Your task to perform on an android device: turn notification dots off Image 0: 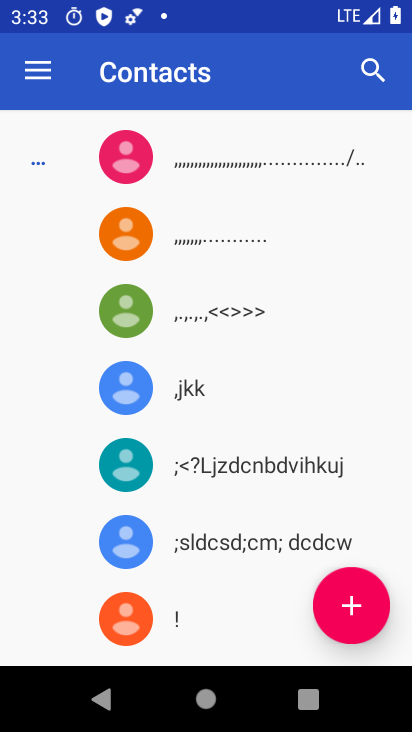
Step 0: drag from (265, 604) to (261, 411)
Your task to perform on an android device: turn notification dots off Image 1: 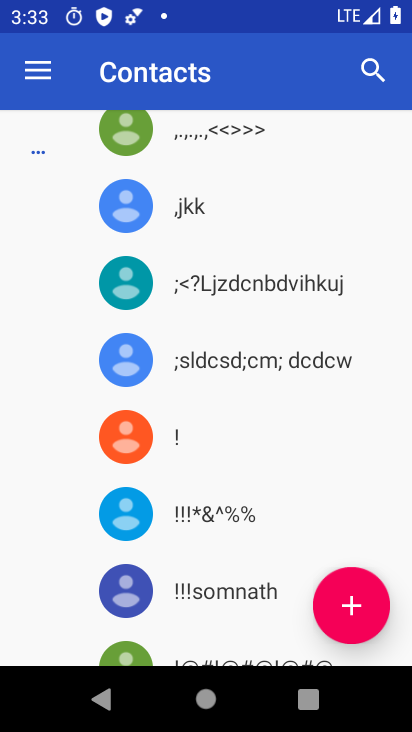
Step 1: press home button
Your task to perform on an android device: turn notification dots off Image 2: 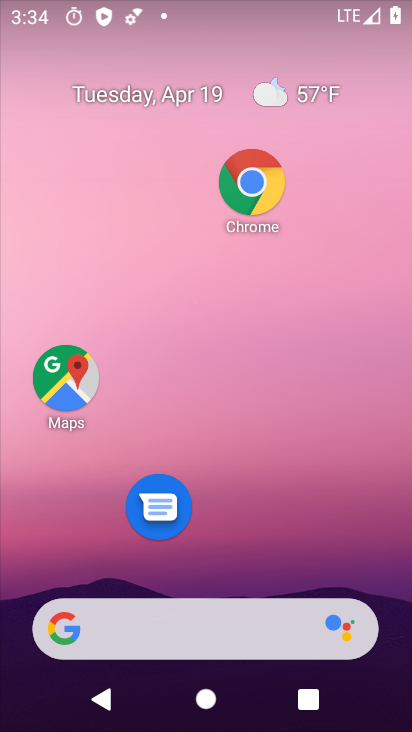
Step 2: drag from (221, 550) to (221, 239)
Your task to perform on an android device: turn notification dots off Image 3: 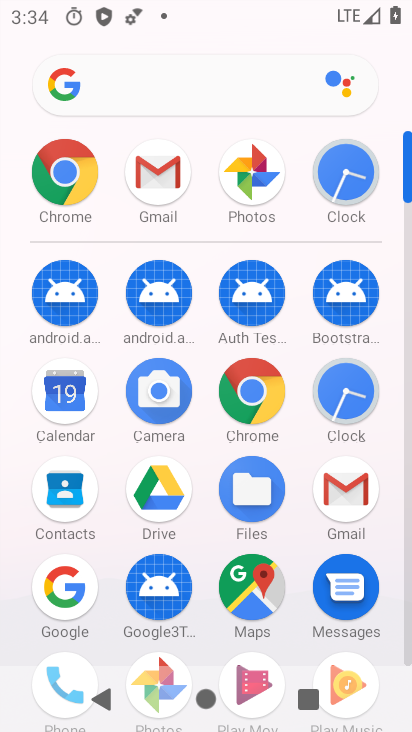
Step 3: drag from (232, 415) to (232, 216)
Your task to perform on an android device: turn notification dots off Image 4: 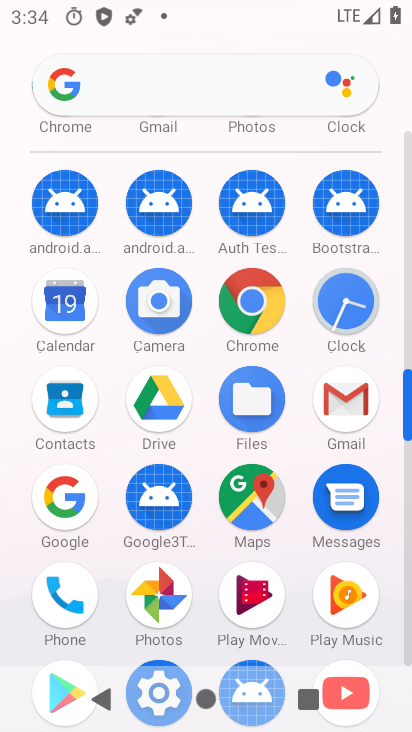
Step 4: drag from (209, 483) to (209, 230)
Your task to perform on an android device: turn notification dots off Image 5: 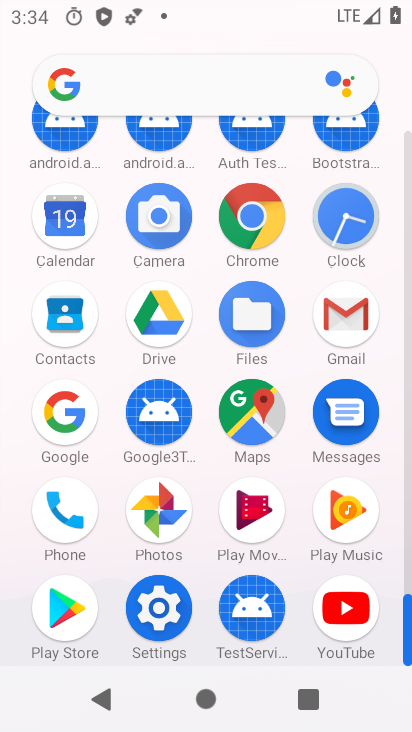
Step 5: click (173, 606)
Your task to perform on an android device: turn notification dots off Image 6: 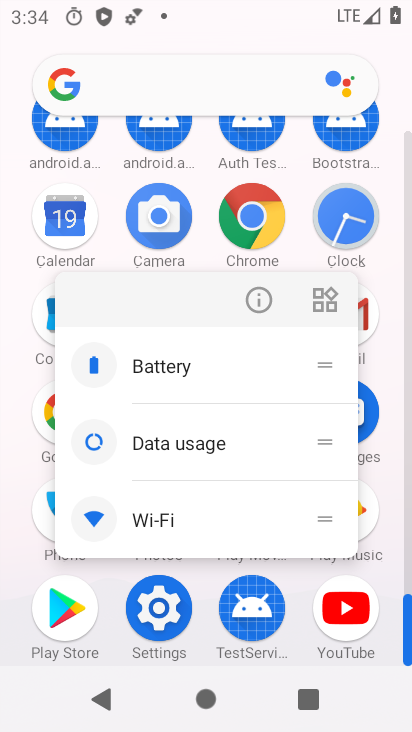
Step 6: click (172, 605)
Your task to perform on an android device: turn notification dots off Image 7: 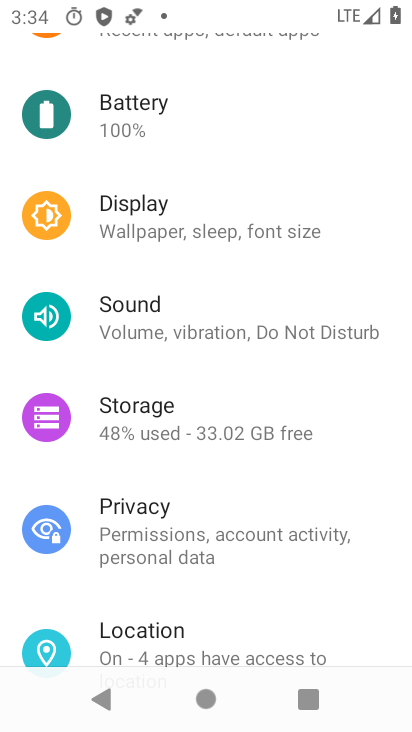
Step 7: drag from (240, 233) to (246, 654)
Your task to perform on an android device: turn notification dots off Image 8: 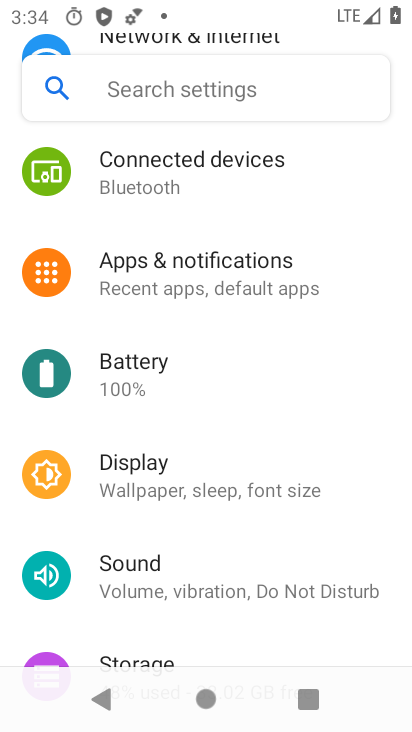
Step 8: click (246, 281)
Your task to perform on an android device: turn notification dots off Image 9: 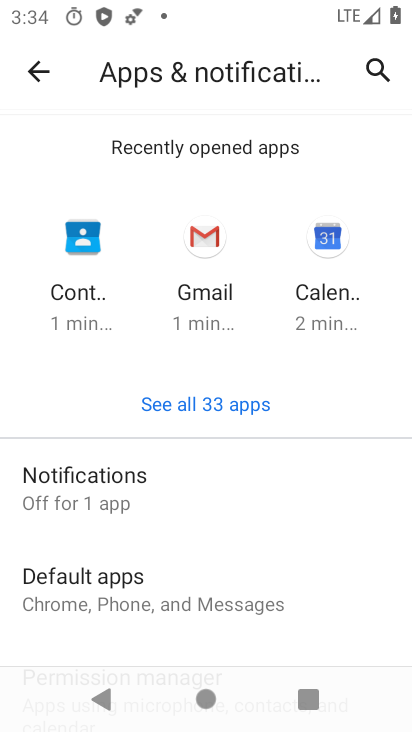
Step 9: click (210, 490)
Your task to perform on an android device: turn notification dots off Image 10: 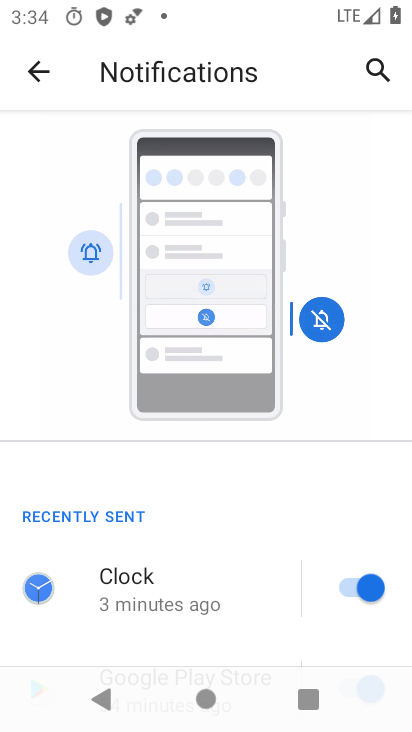
Step 10: drag from (200, 556) to (235, 184)
Your task to perform on an android device: turn notification dots off Image 11: 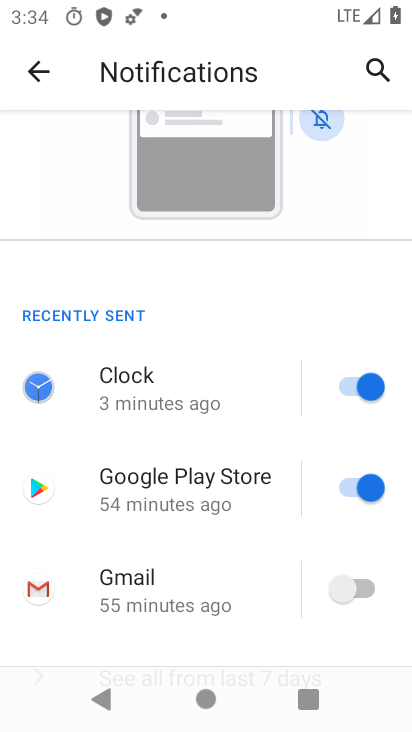
Step 11: drag from (208, 537) to (244, 197)
Your task to perform on an android device: turn notification dots off Image 12: 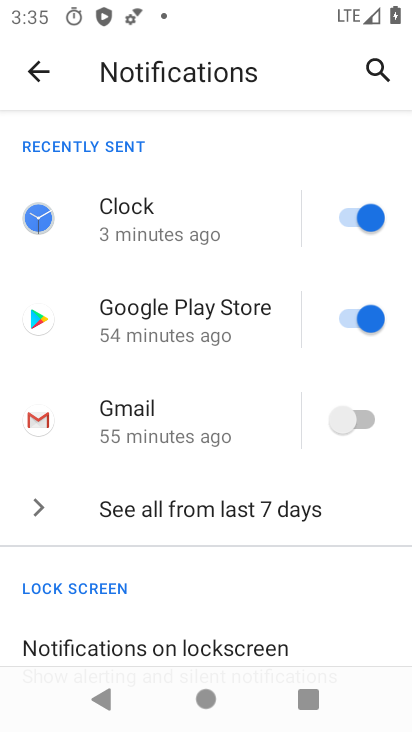
Step 12: drag from (225, 534) to (288, 193)
Your task to perform on an android device: turn notification dots off Image 13: 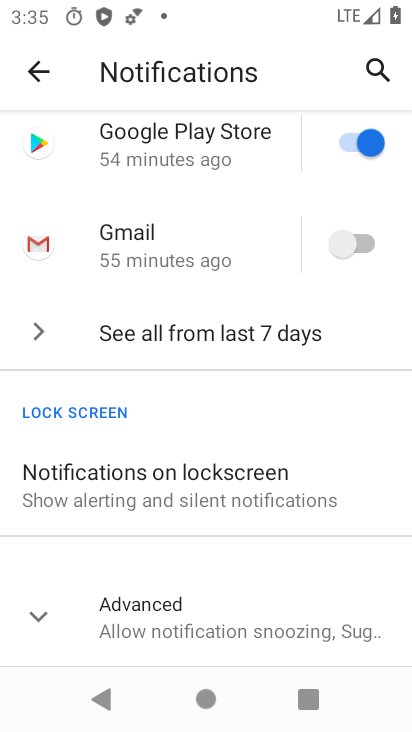
Step 13: drag from (217, 509) to (247, 309)
Your task to perform on an android device: turn notification dots off Image 14: 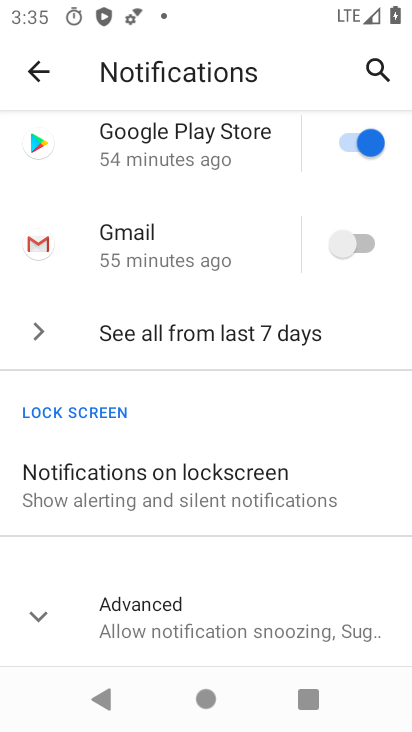
Step 14: click (211, 618)
Your task to perform on an android device: turn notification dots off Image 15: 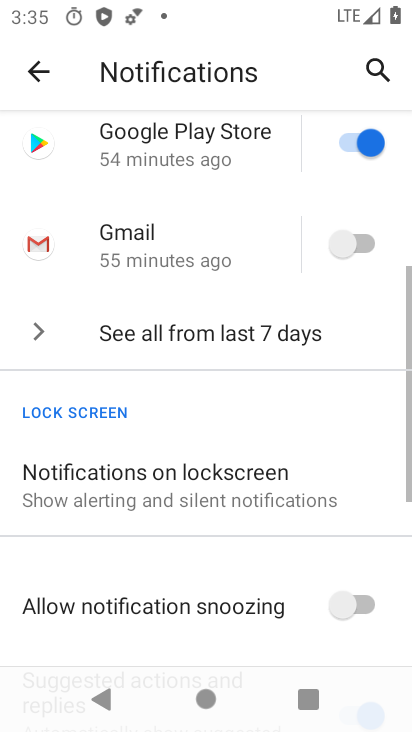
Step 15: task complete